Your task to perform on an android device: turn on location history Image 0: 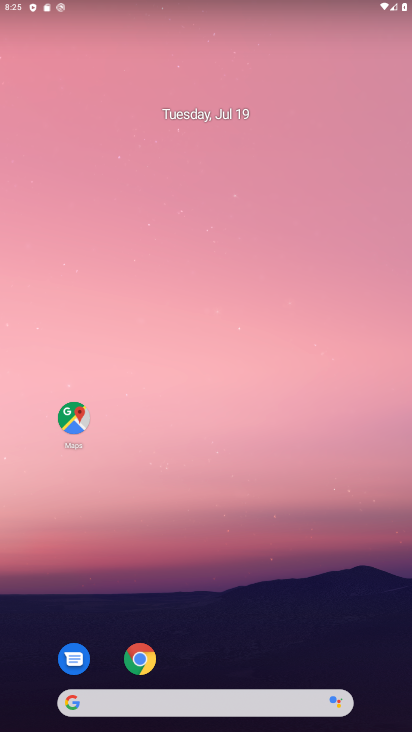
Step 0: drag from (253, 657) to (296, 214)
Your task to perform on an android device: turn on location history Image 1: 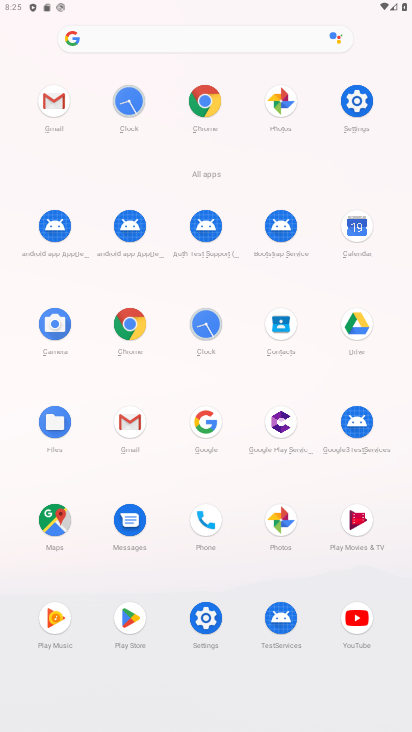
Step 1: click (210, 615)
Your task to perform on an android device: turn on location history Image 2: 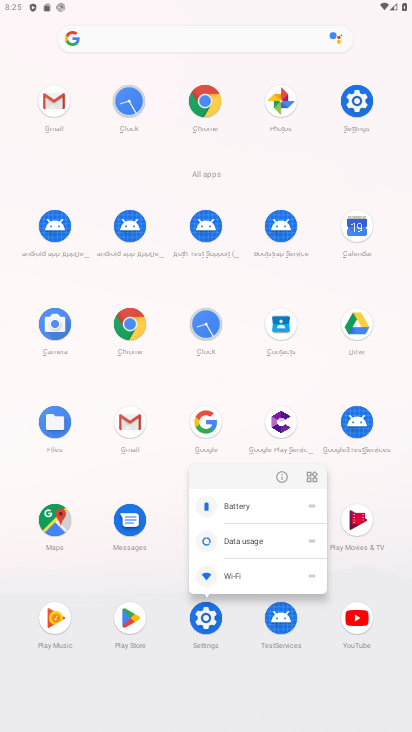
Step 2: click (210, 616)
Your task to perform on an android device: turn on location history Image 3: 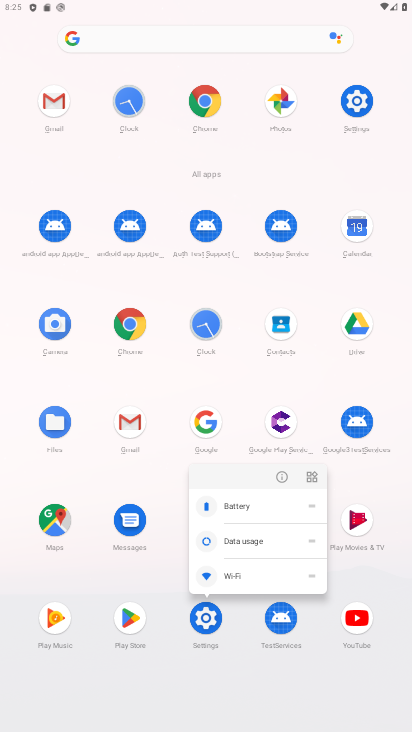
Step 3: click (207, 621)
Your task to perform on an android device: turn on location history Image 4: 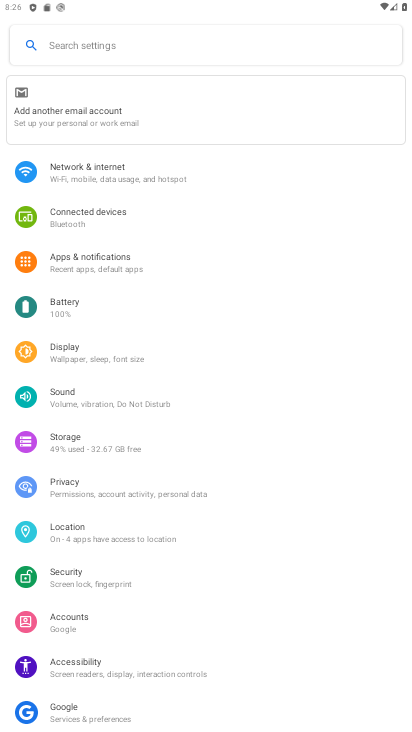
Step 4: click (89, 522)
Your task to perform on an android device: turn on location history Image 5: 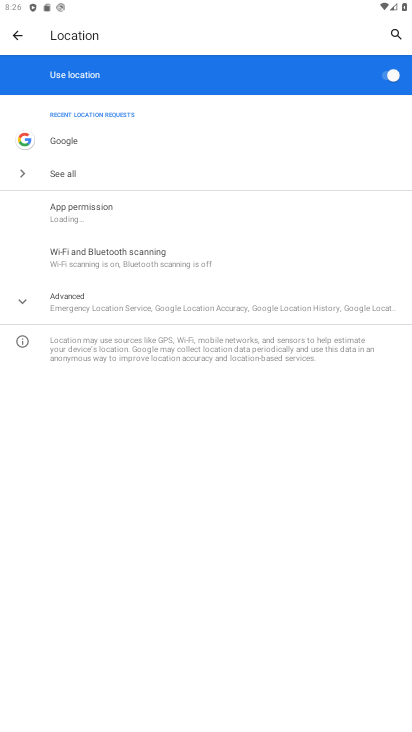
Step 5: click (180, 305)
Your task to perform on an android device: turn on location history Image 6: 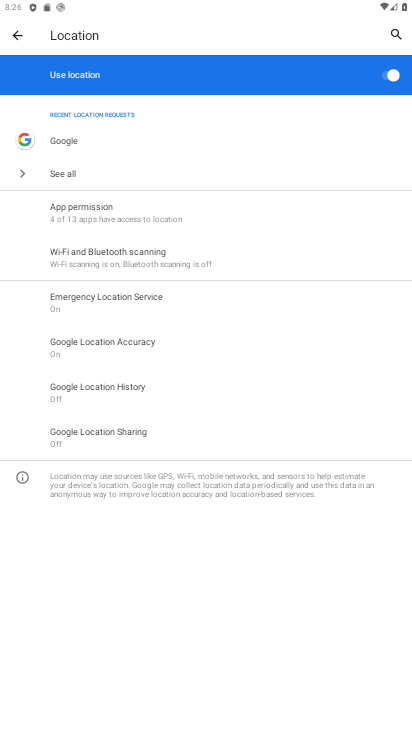
Step 6: click (169, 395)
Your task to perform on an android device: turn on location history Image 7: 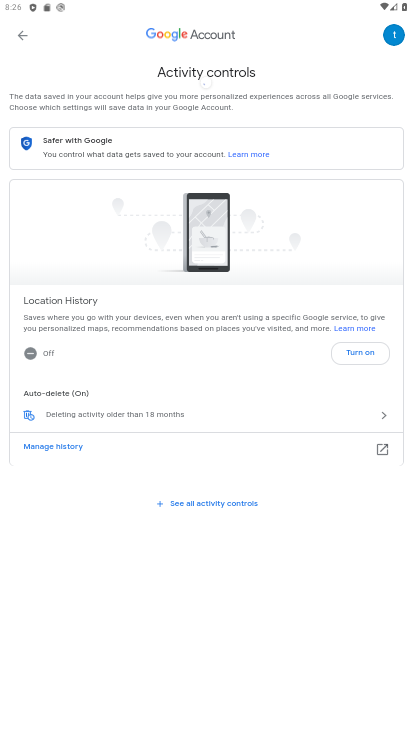
Step 7: click (377, 353)
Your task to perform on an android device: turn on location history Image 8: 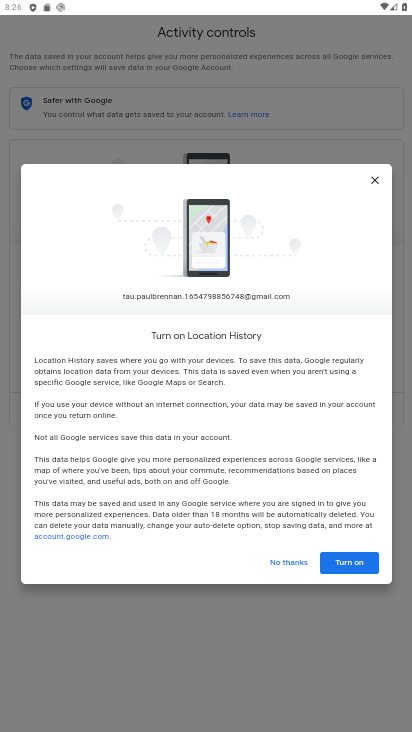
Step 8: click (353, 563)
Your task to perform on an android device: turn on location history Image 9: 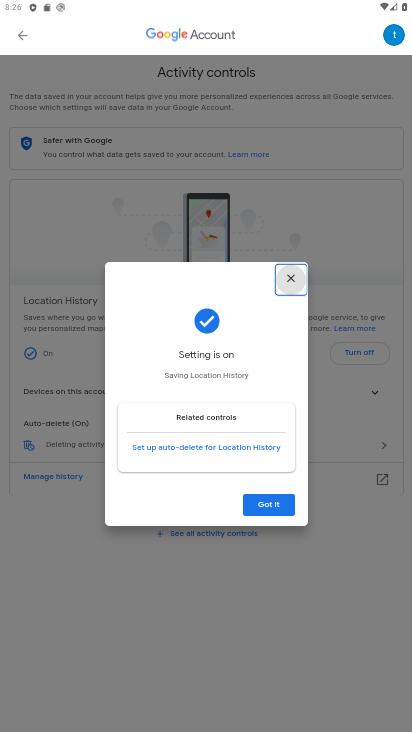
Step 9: click (269, 491)
Your task to perform on an android device: turn on location history Image 10: 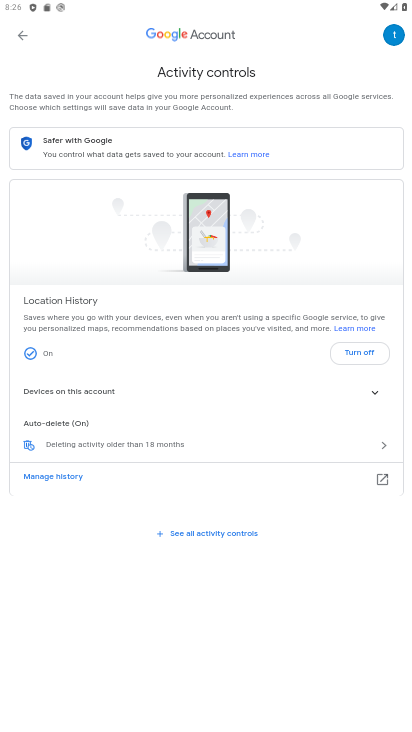
Step 10: task complete